Your task to perform on an android device: change the upload size in google photos Image 0: 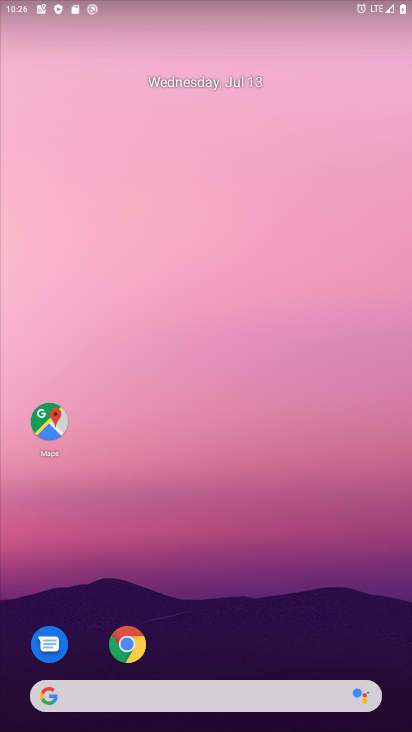
Step 0: drag from (191, 722) to (198, 207)
Your task to perform on an android device: change the upload size in google photos Image 1: 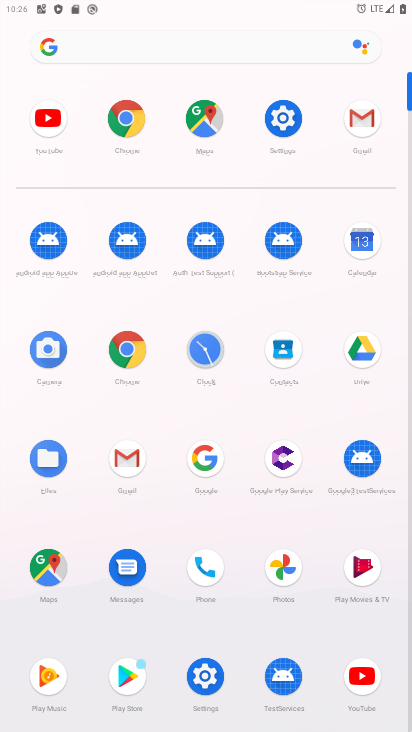
Step 1: click (283, 565)
Your task to perform on an android device: change the upload size in google photos Image 2: 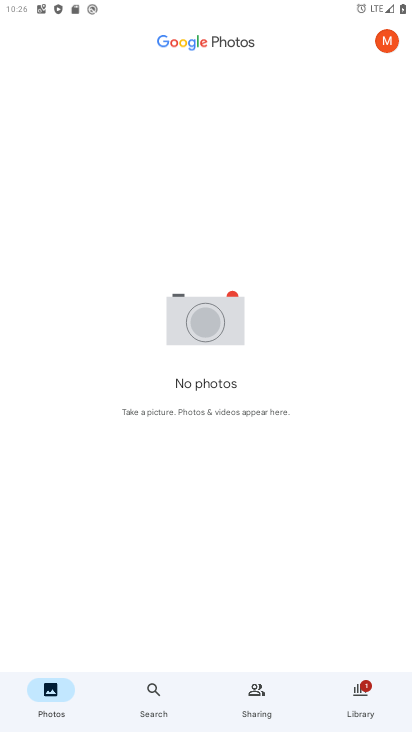
Step 2: click (384, 36)
Your task to perform on an android device: change the upload size in google photos Image 3: 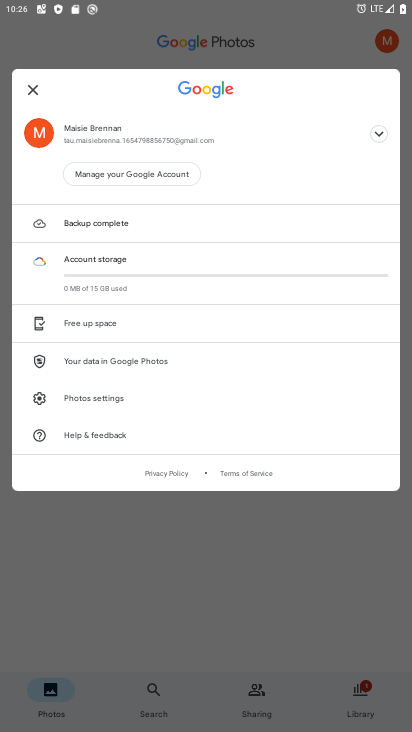
Step 3: click (89, 397)
Your task to perform on an android device: change the upload size in google photos Image 4: 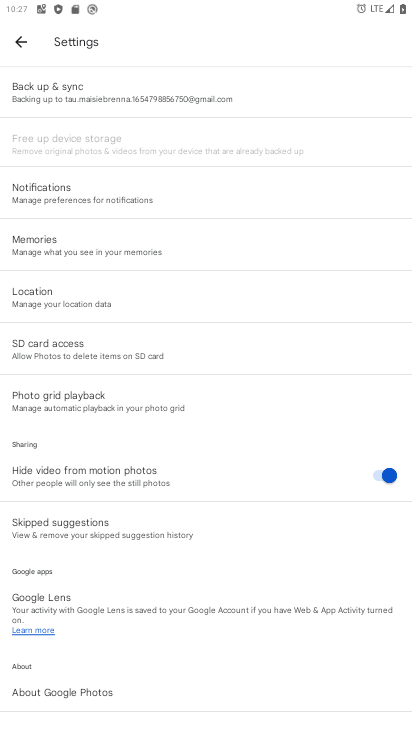
Step 4: click (45, 91)
Your task to perform on an android device: change the upload size in google photos Image 5: 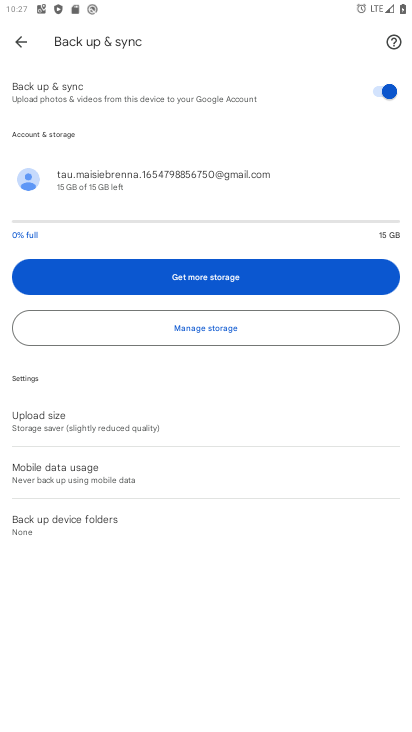
Step 5: click (52, 427)
Your task to perform on an android device: change the upload size in google photos Image 6: 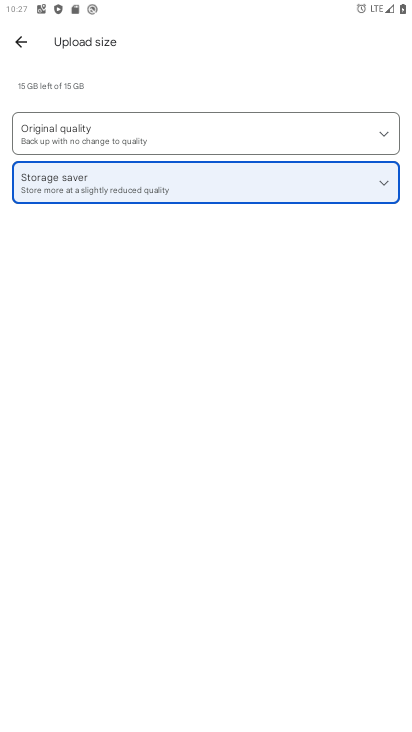
Step 6: click (356, 124)
Your task to perform on an android device: change the upload size in google photos Image 7: 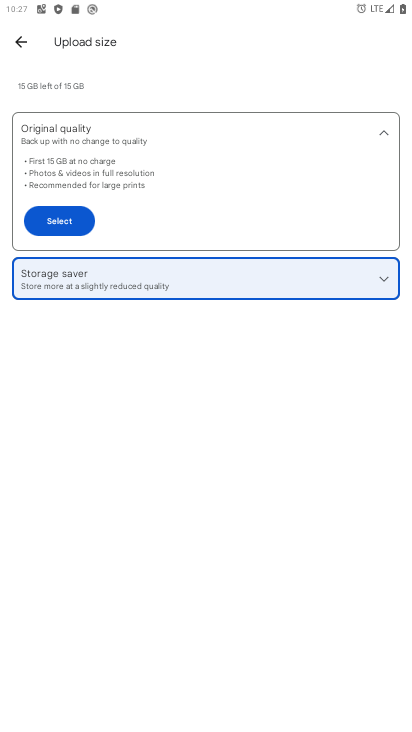
Step 7: click (63, 218)
Your task to perform on an android device: change the upload size in google photos Image 8: 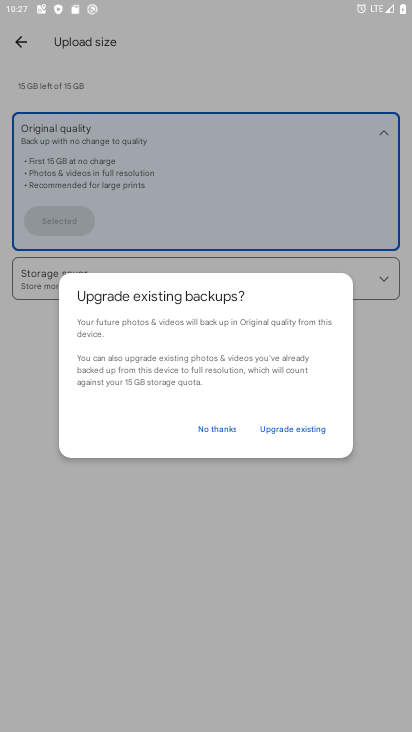
Step 8: click (228, 427)
Your task to perform on an android device: change the upload size in google photos Image 9: 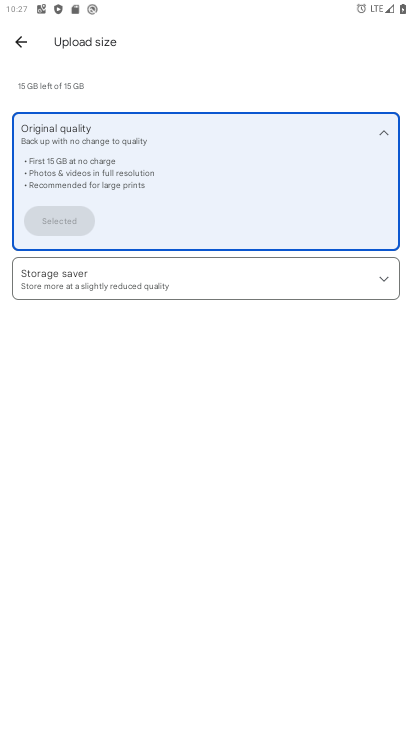
Step 9: task complete